Your task to perform on an android device: turn off data saver in the chrome app Image 0: 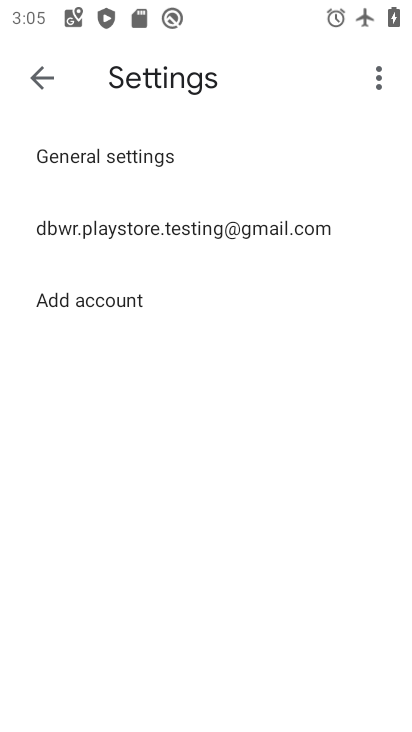
Step 0: press home button
Your task to perform on an android device: turn off data saver in the chrome app Image 1: 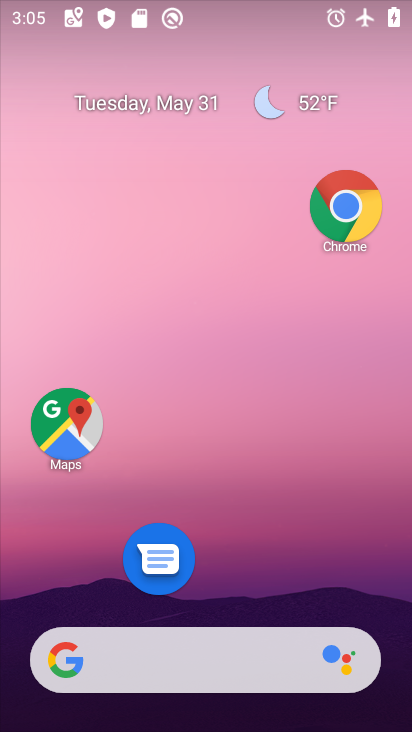
Step 1: drag from (221, 597) to (119, 157)
Your task to perform on an android device: turn off data saver in the chrome app Image 2: 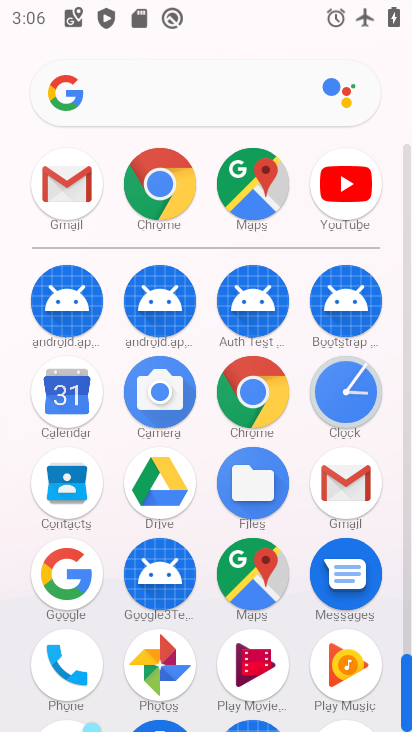
Step 2: click (258, 410)
Your task to perform on an android device: turn off data saver in the chrome app Image 3: 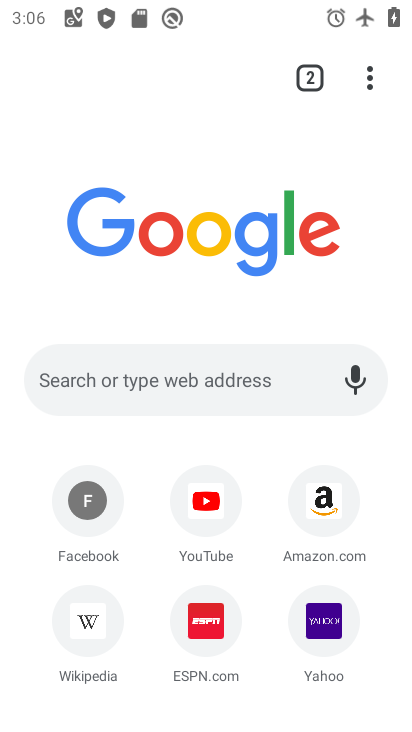
Step 3: click (369, 69)
Your task to perform on an android device: turn off data saver in the chrome app Image 4: 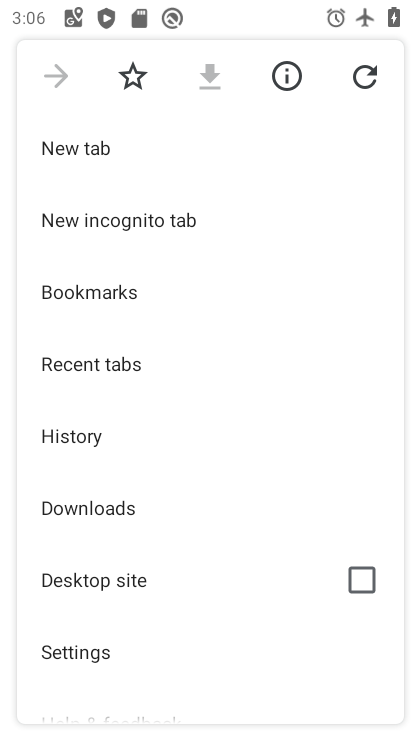
Step 4: click (120, 671)
Your task to perform on an android device: turn off data saver in the chrome app Image 5: 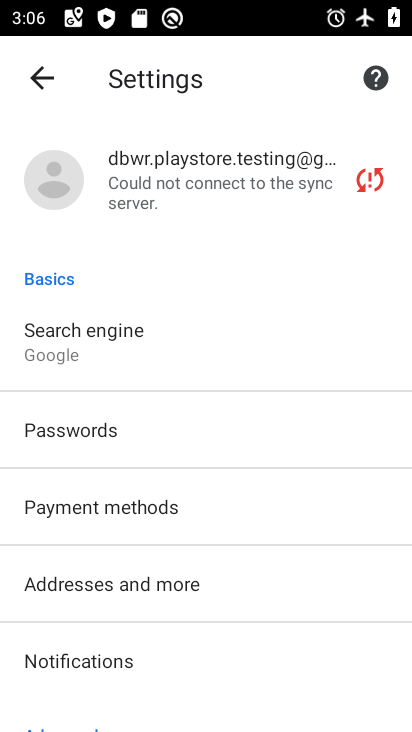
Step 5: drag from (181, 662) to (214, 415)
Your task to perform on an android device: turn off data saver in the chrome app Image 6: 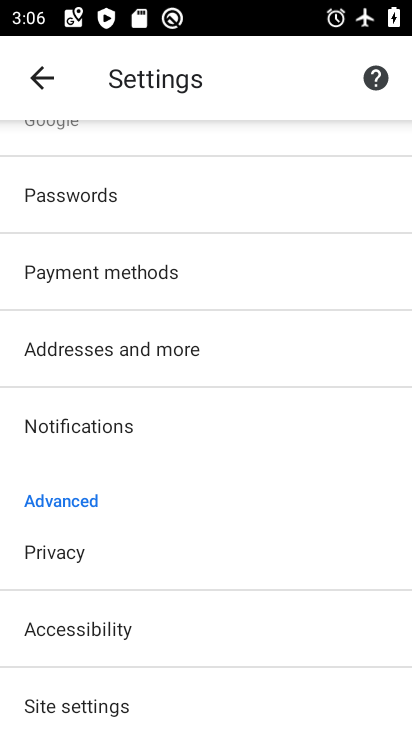
Step 6: drag from (190, 662) to (186, 372)
Your task to perform on an android device: turn off data saver in the chrome app Image 7: 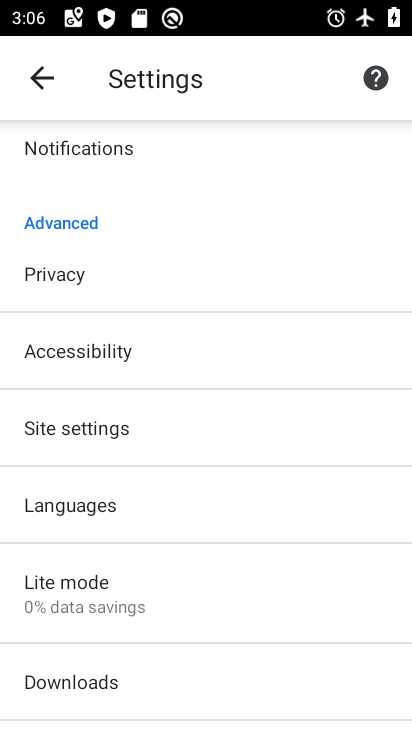
Step 7: click (142, 589)
Your task to perform on an android device: turn off data saver in the chrome app Image 8: 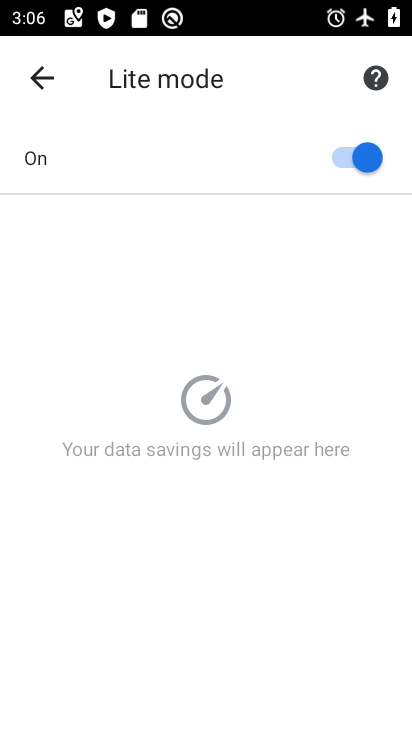
Step 8: click (355, 165)
Your task to perform on an android device: turn off data saver in the chrome app Image 9: 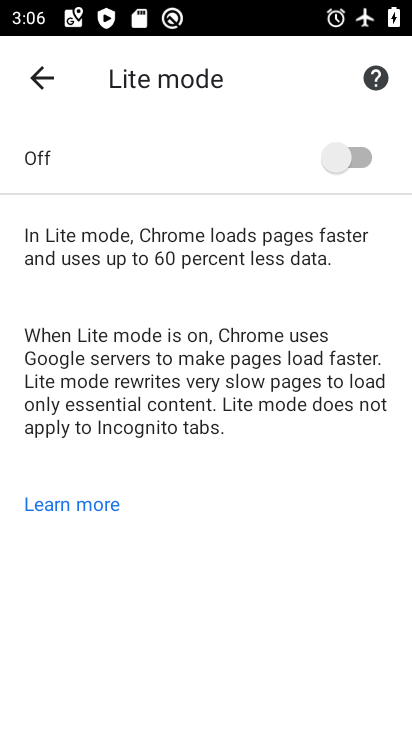
Step 9: task complete